Your task to perform on an android device: open a bookmark in the chrome app Image 0: 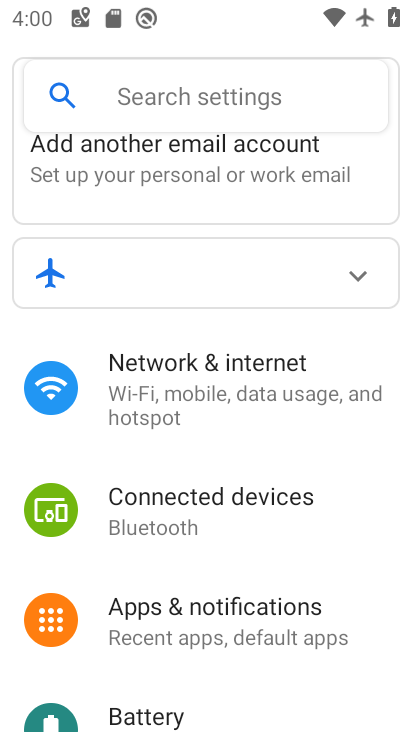
Step 0: press home button
Your task to perform on an android device: open a bookmark in the chrome app Image 1: 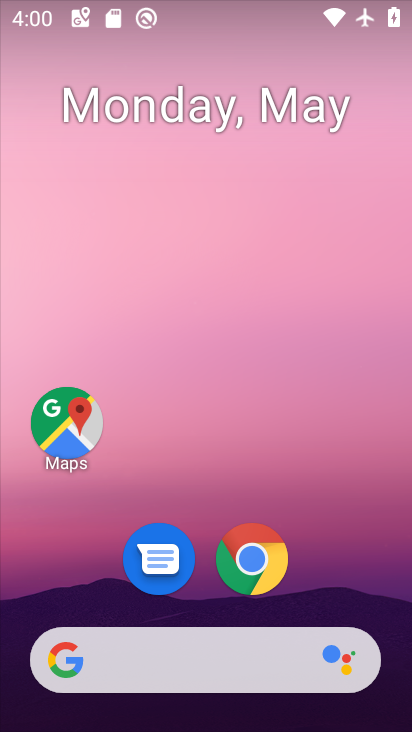
Step 1: drag from (310, 605) to (269, 222)
Your task to perform on an android device: open a bookmark in the chrome app Image 2: 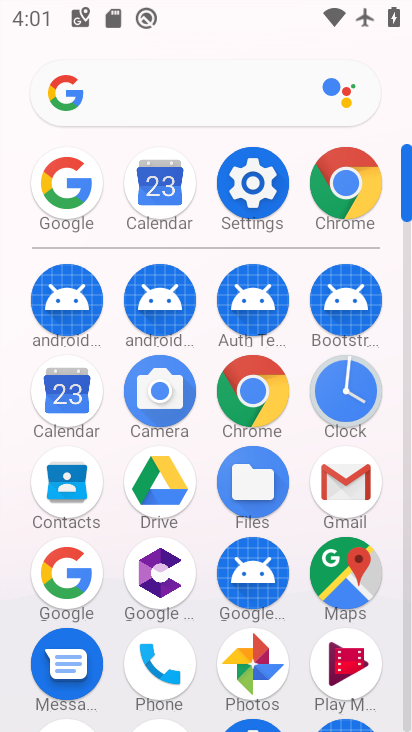
Step 2: click (348, 214)
Your task to perform on an android device: open a bookmark in the chrome app Image 3: 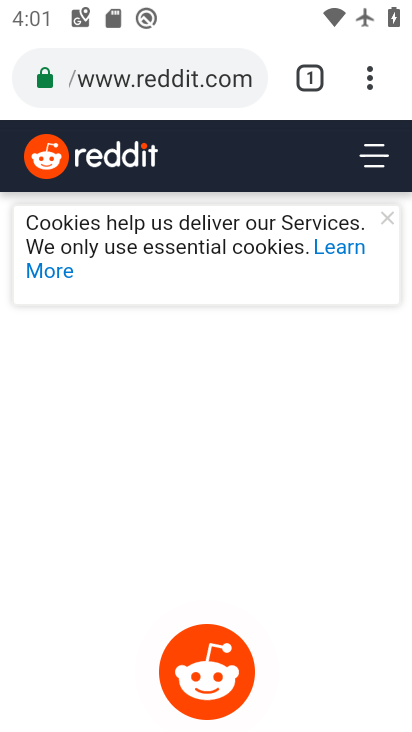
Step 3: click (371, 73)
Your task to perform on an android device: open a bookmark in the chrome app Image 4: 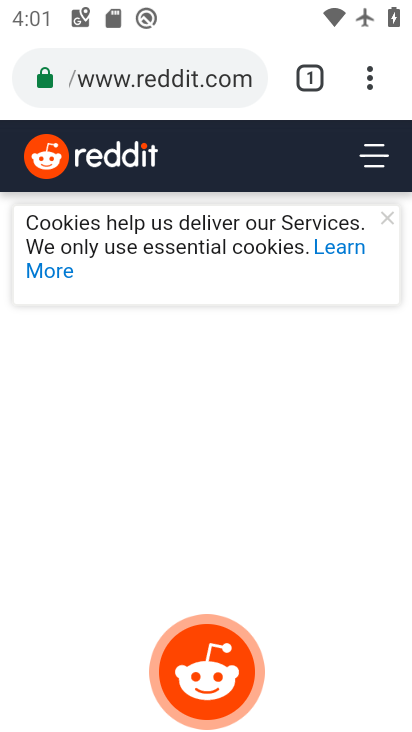
Step 4: click (371, 86)
Your task to perform on an android device: open a bookmark in the chrome app Image 5: 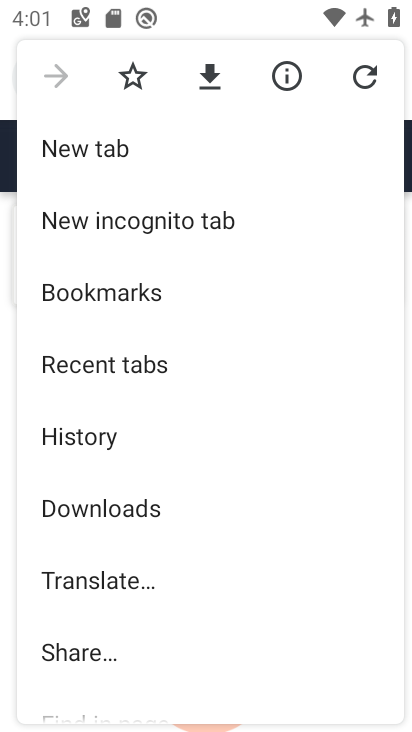
Step 5: click (104, 292)
Your task to perform on an android device: open a bookmark in the chrome app Image 6: 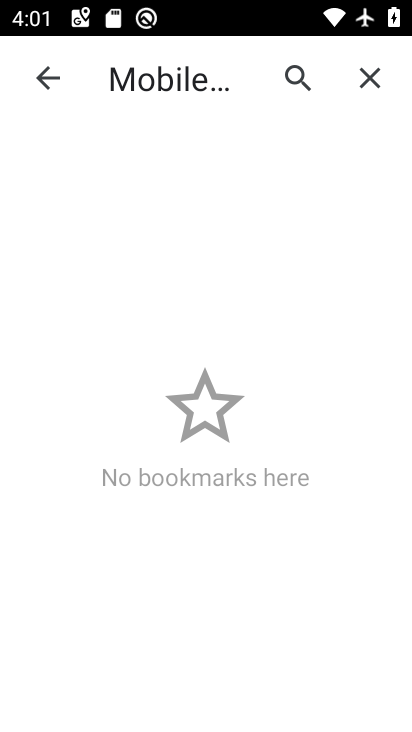
Step 6: task complete